Your task to perform on an android device: turn on notifications settings in the gmail app Image 0: 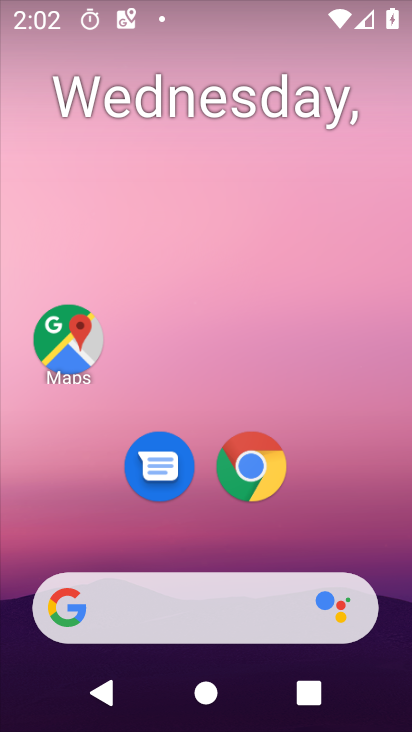
Step 0: drag from (351, 512) to (382, 41)
Your task to perform on an android device: turn on notifications settings in the gmail app Image 1: 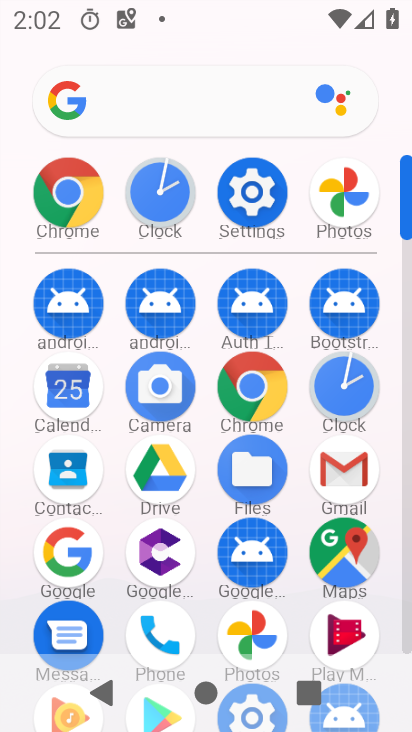
Step 1: click (341, 483)
Your task to perform on an android device: turn on notifications settings in the gmail app Image 2: 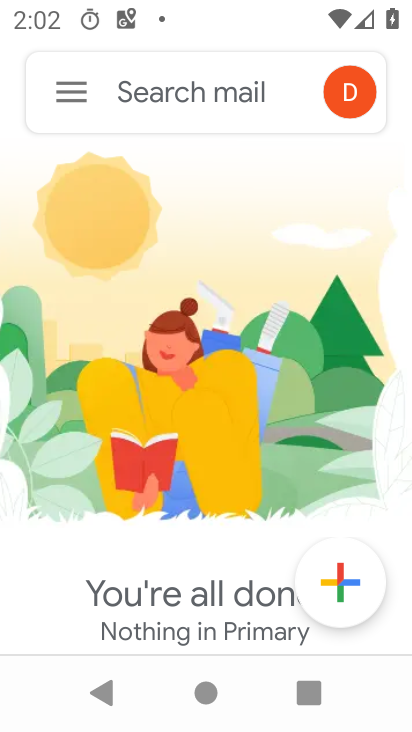
Step 2: click (66, 93)
Your task to perform on an android device: turn on notifications settings in the gmail app Image 3: 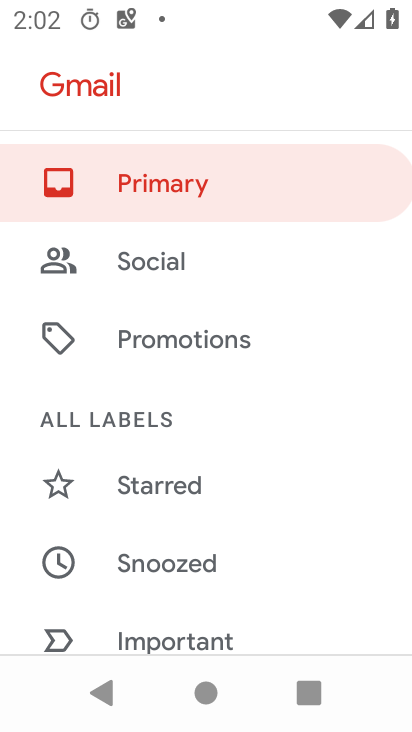
Step 3: drag from (265, 584) to (261, 170)
Your task to perform on an android device: turn on notifications settings in the gmail app Image 4: 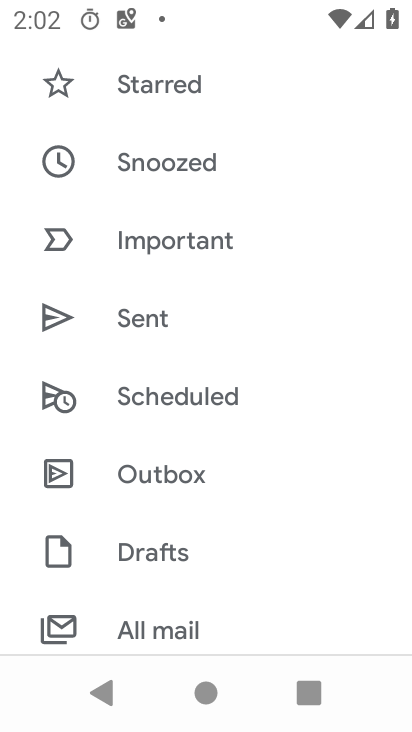
Step 4: drag from (313, 531) to (289, 208)
Your task to perform on an android device: turn on notifications settings in the gmail app Image 5: 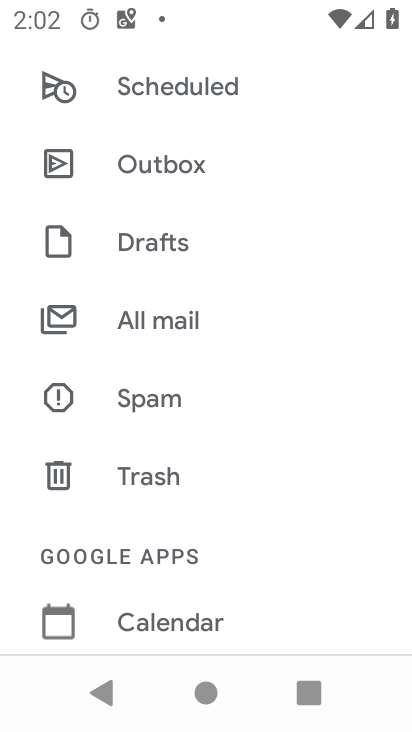
Step 5: drag from (197, 544) to (204, 183)
Your task to perform on an android device: turn on notifications settings in the gmail app Image 6: 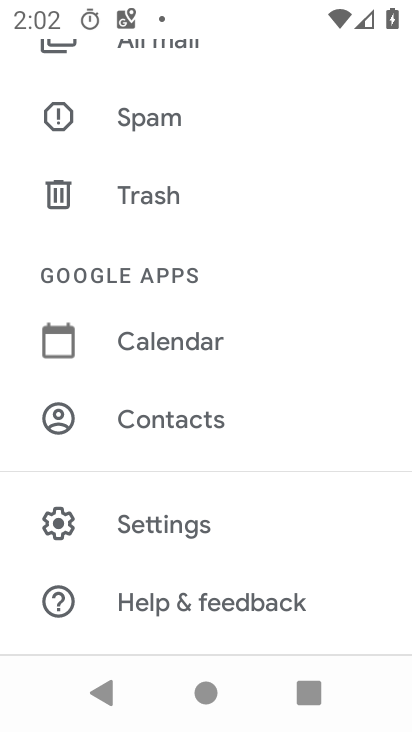
Step 6: click (195, 513)
Your task to perform on an android device: turn on notifications settings in the gmail app Image 7: 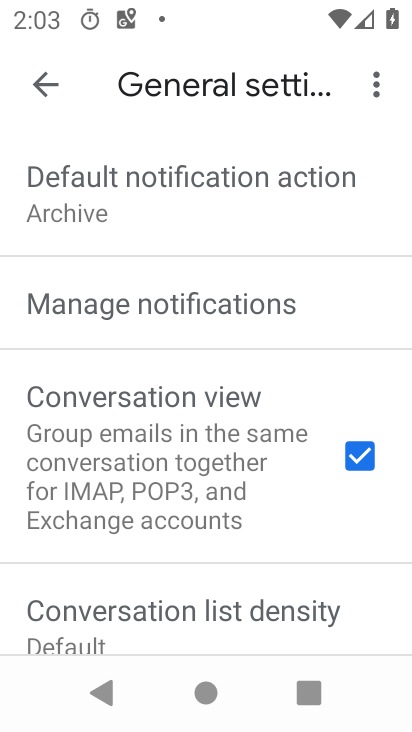
Step 7: click (179, 307)
Your task to perform on an android device: turn on notifications settings in the gmail app Image 8: 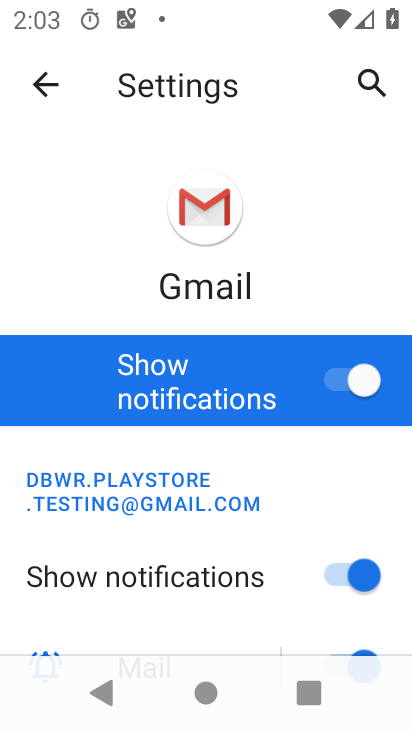
Step 8: task complete